Your task to perform on an android device: Search for "logitech g pro" on amazon, select the first entry, add it to the cart, then select checkout. Image 0: 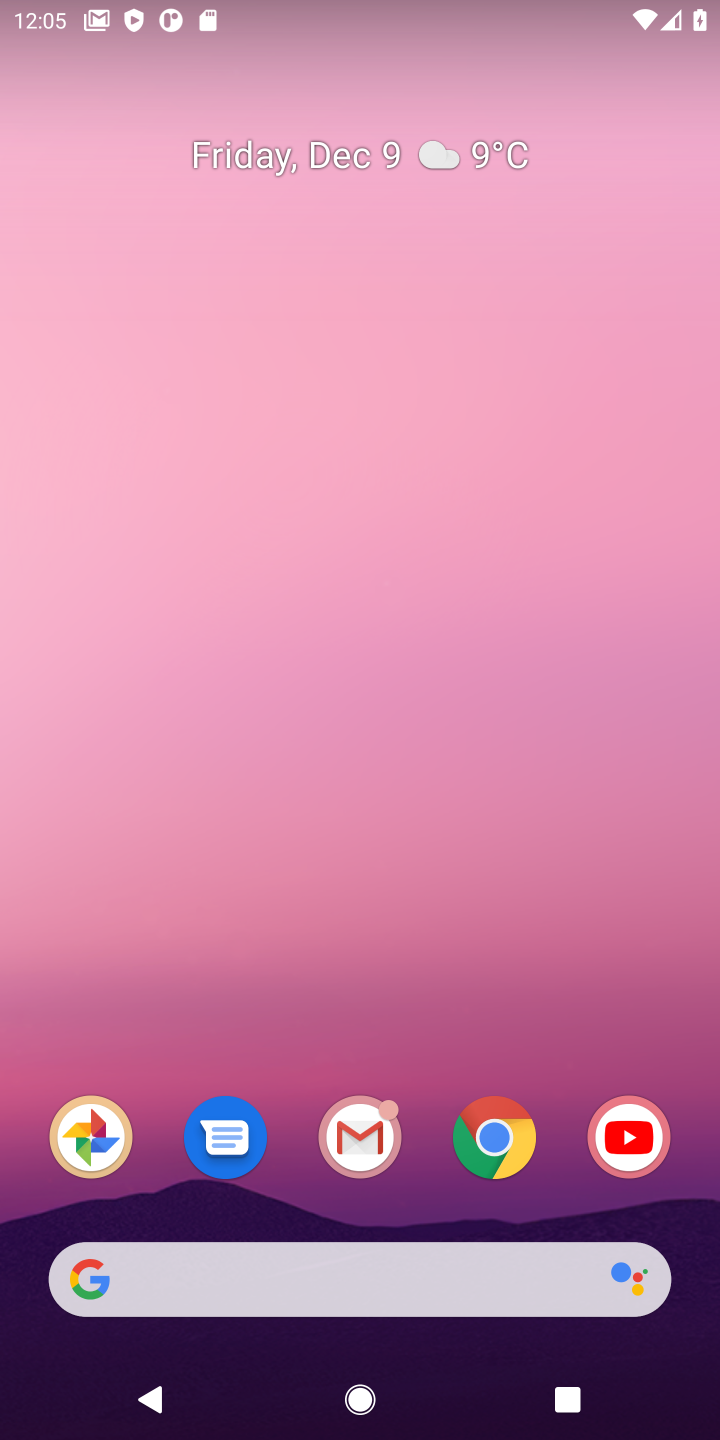
Step 0: click (301, 1273)
Your task to perform on an android device: Search for "logitech g pro" on amazon, select the first entry, add it to the cart, then select checkout. Image 1: 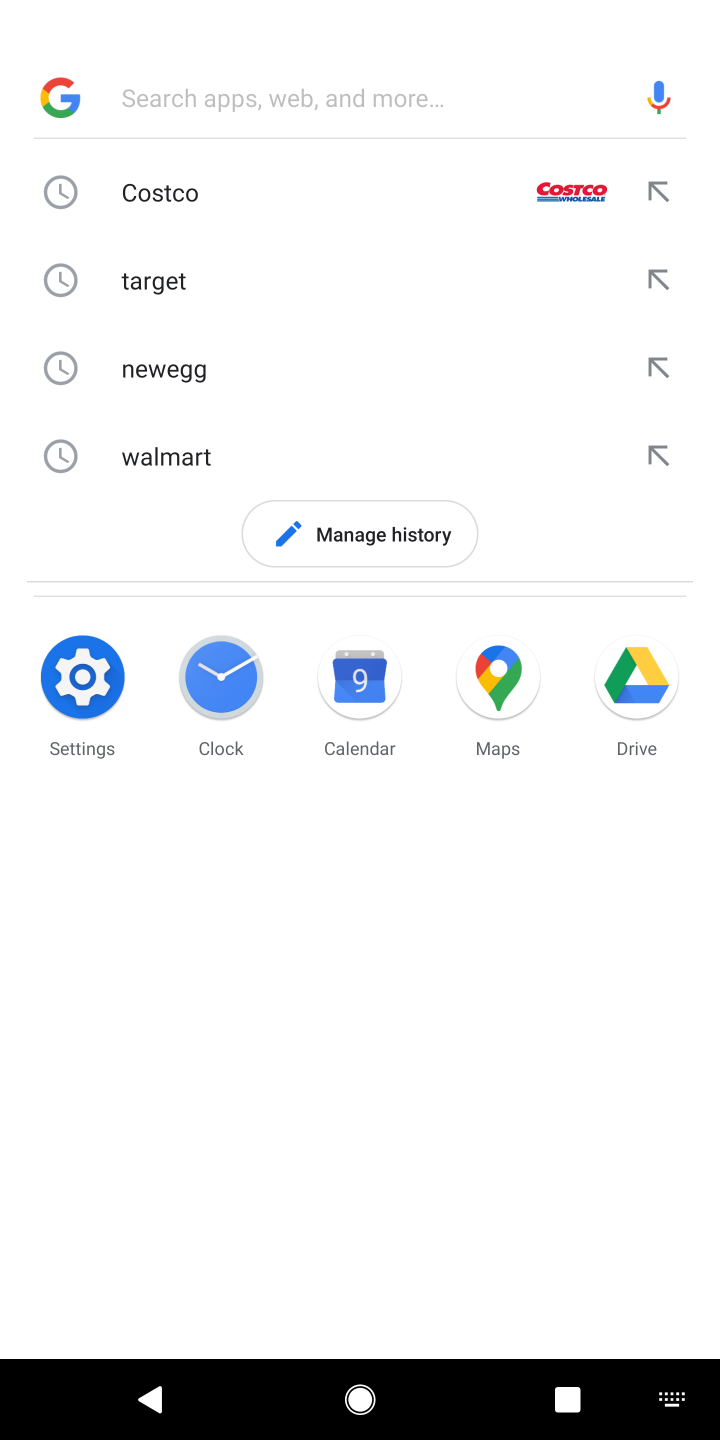
Step 1: type "amazon"
Your task to perform on an android device: Search for "logitech g pro" on amazon, select the first entry, add it to the cart, then select checkout. Image 2: 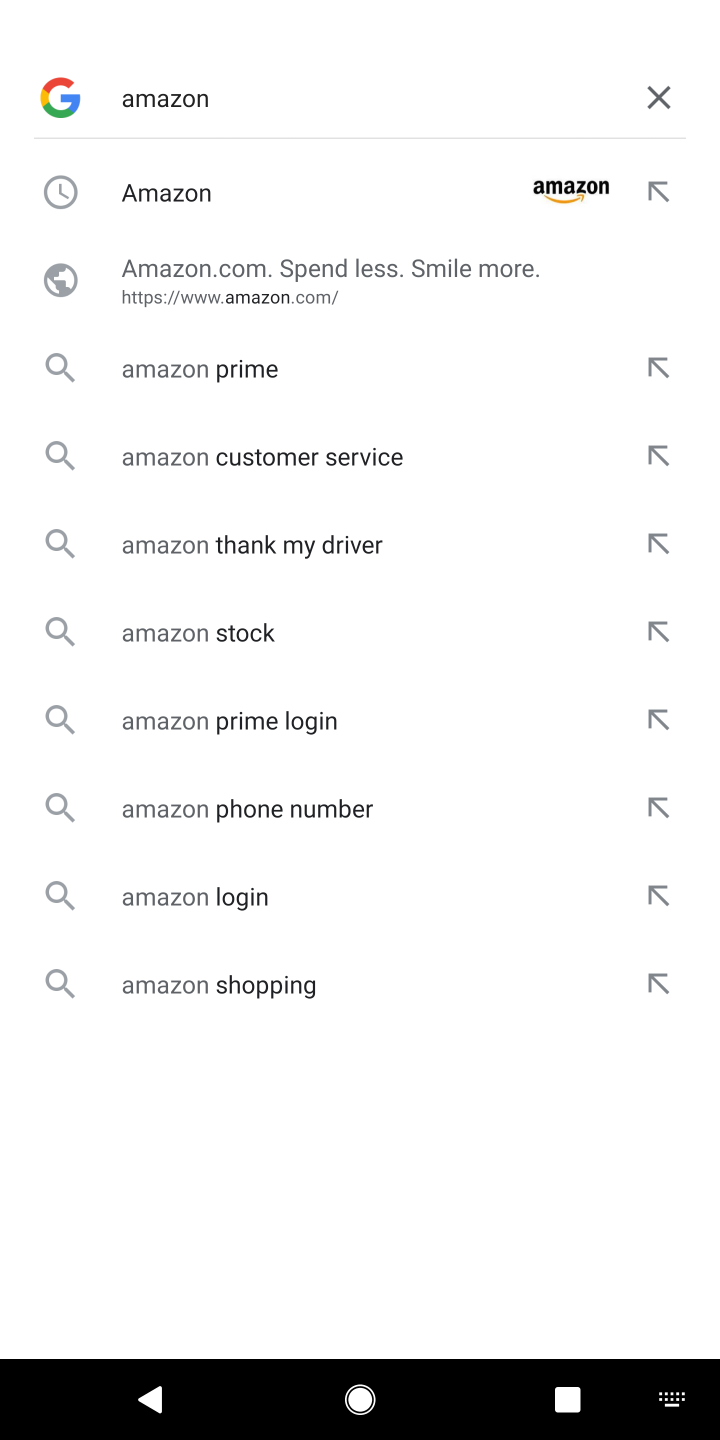
Step 2: click (253, 213)
Your task to perform on an android device: Search for "logitech g pro" on amazon, select the first entry, add it to the cart, then select checkout. Image 3: 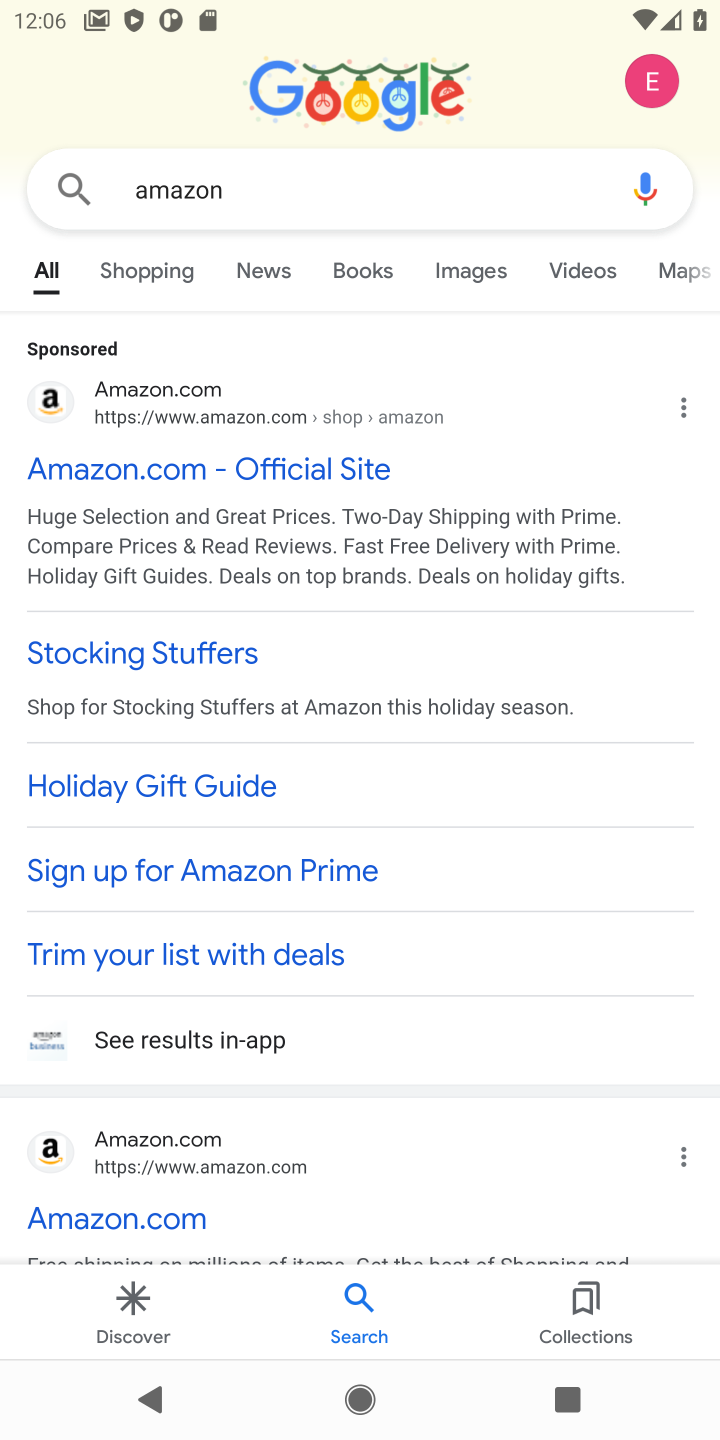
Step 3: click (145, 497)
Your task to perform on an android device: Search for "logitech g pro" on amazon, select the first entry, add it to the cart, then select checkout. Image 4: 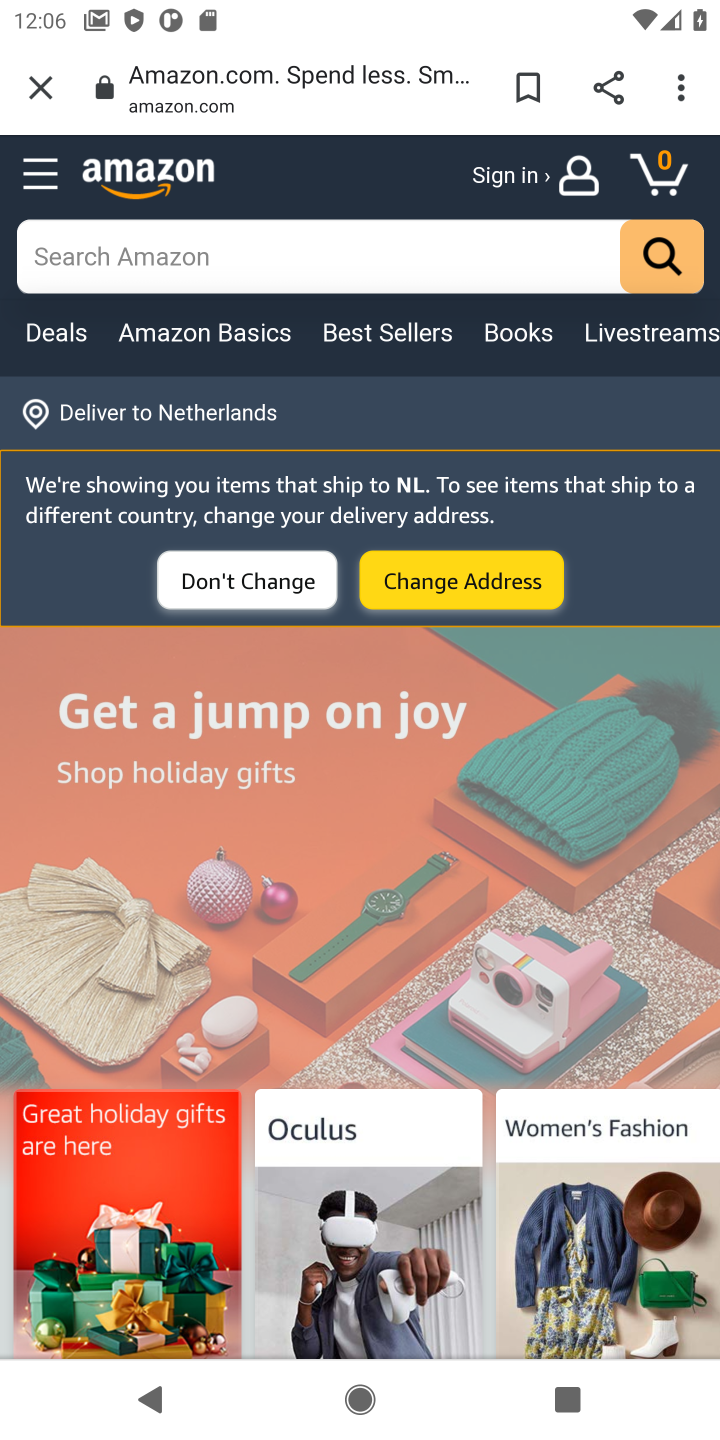
Step 4: click (320, 276)
Your task to perform on an android device: Search for "logitech g pro" on amazon, select the first entry, add it to the cart, then select checkout. Image 5: 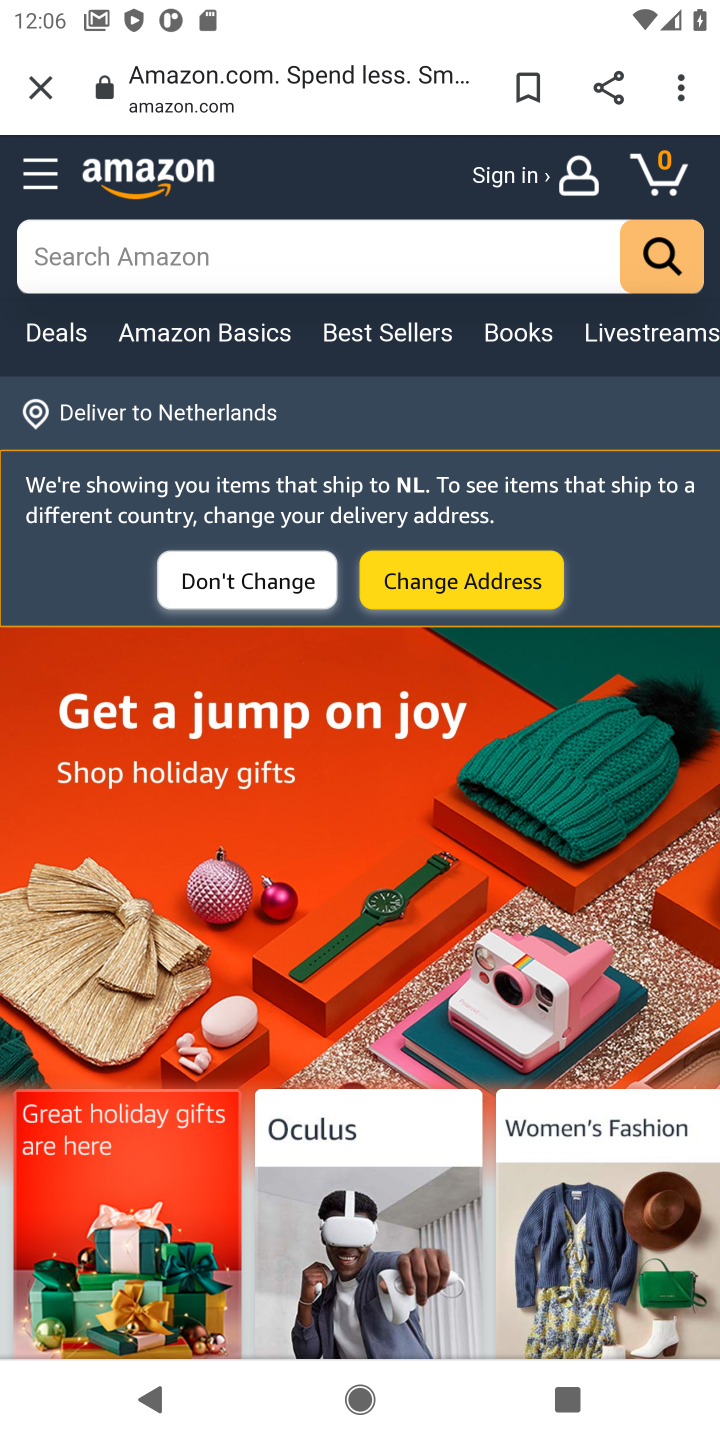
Step 5: click (320, 276)
Your task to perform on an android device: Search for "logitech g pro" on amazon, select the first entry, add it to the cart, then select checkout. Image 6: 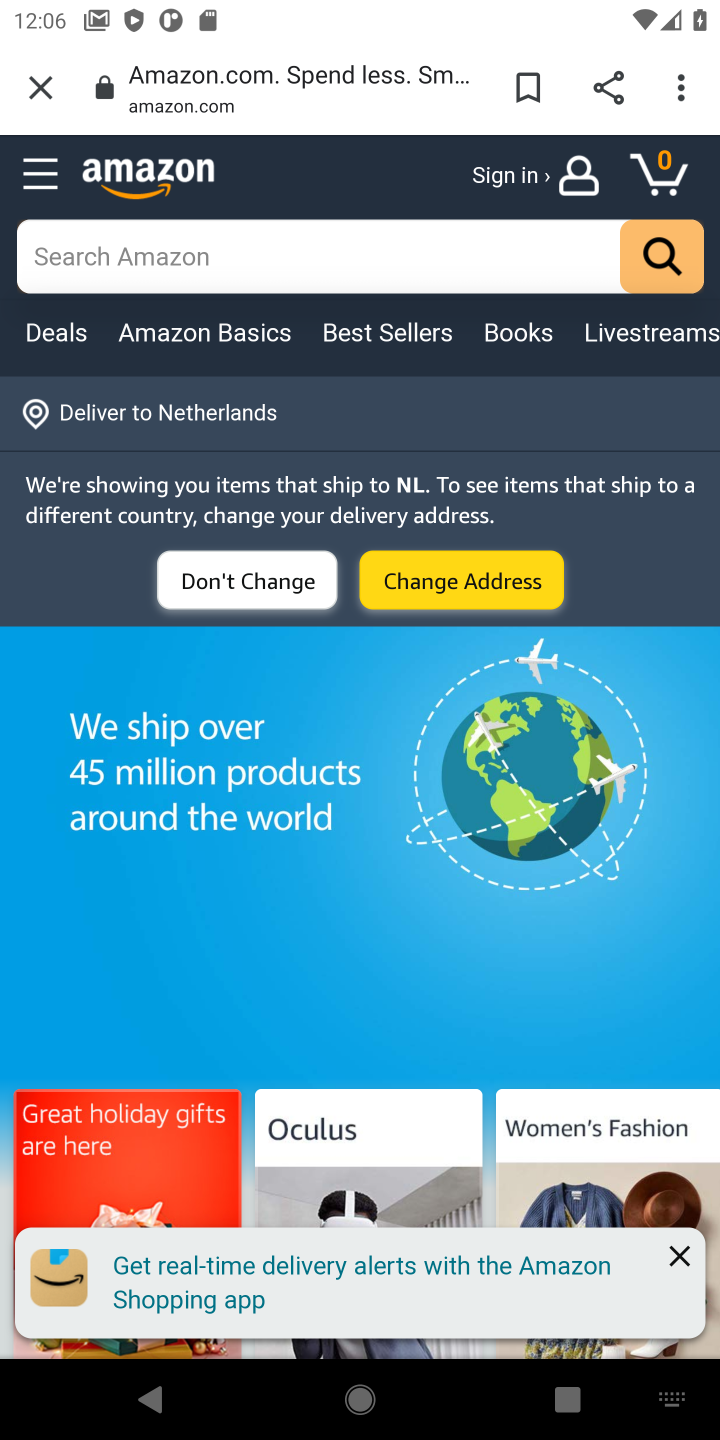
Step 6: type "logitech gpro"
Your task to perform on an android device: Search for "logitech g pro" on amazon, select the first entry, add it to the cart, then select checkout. Image 7: 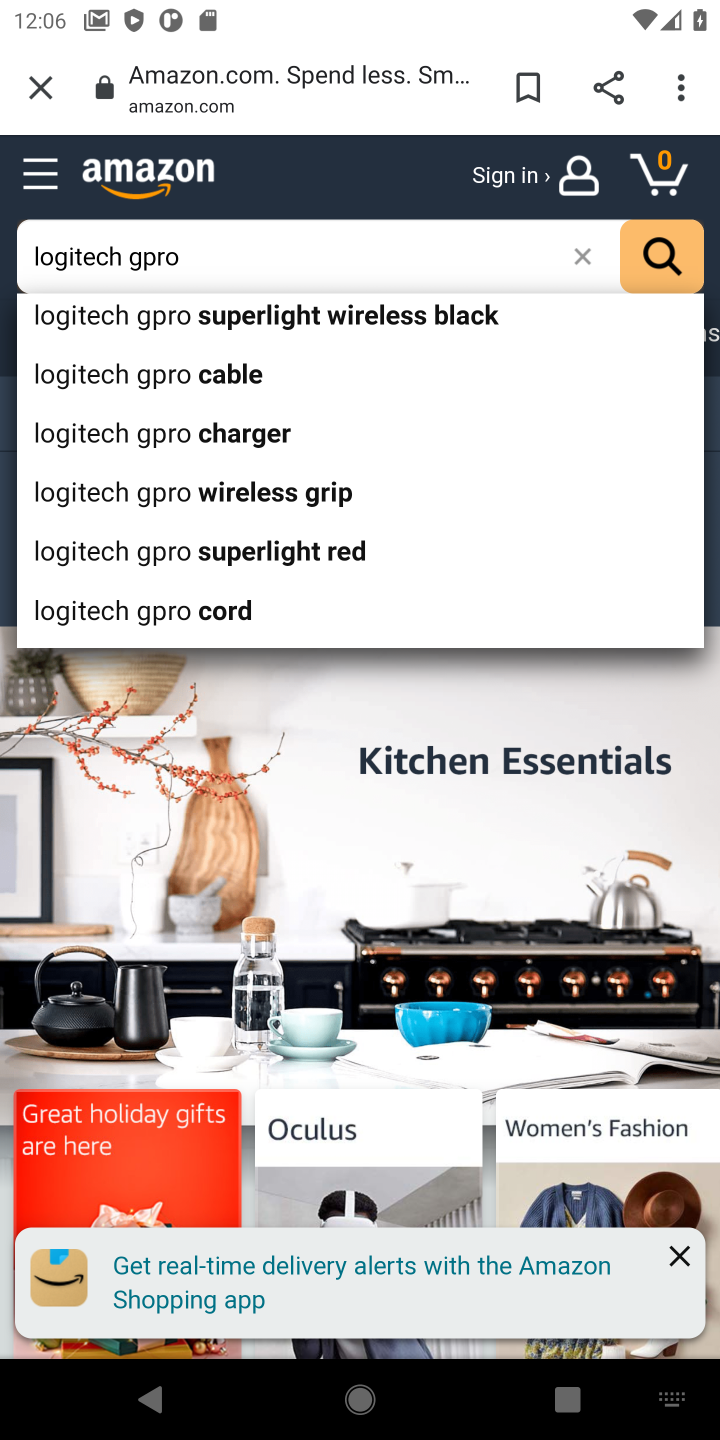
Step 7: click (657, 265)
Your task to perform on an android device: Search for "logitech g pro" on amazon, select the first entry, add it to the cart, then select checkout. Image 8: 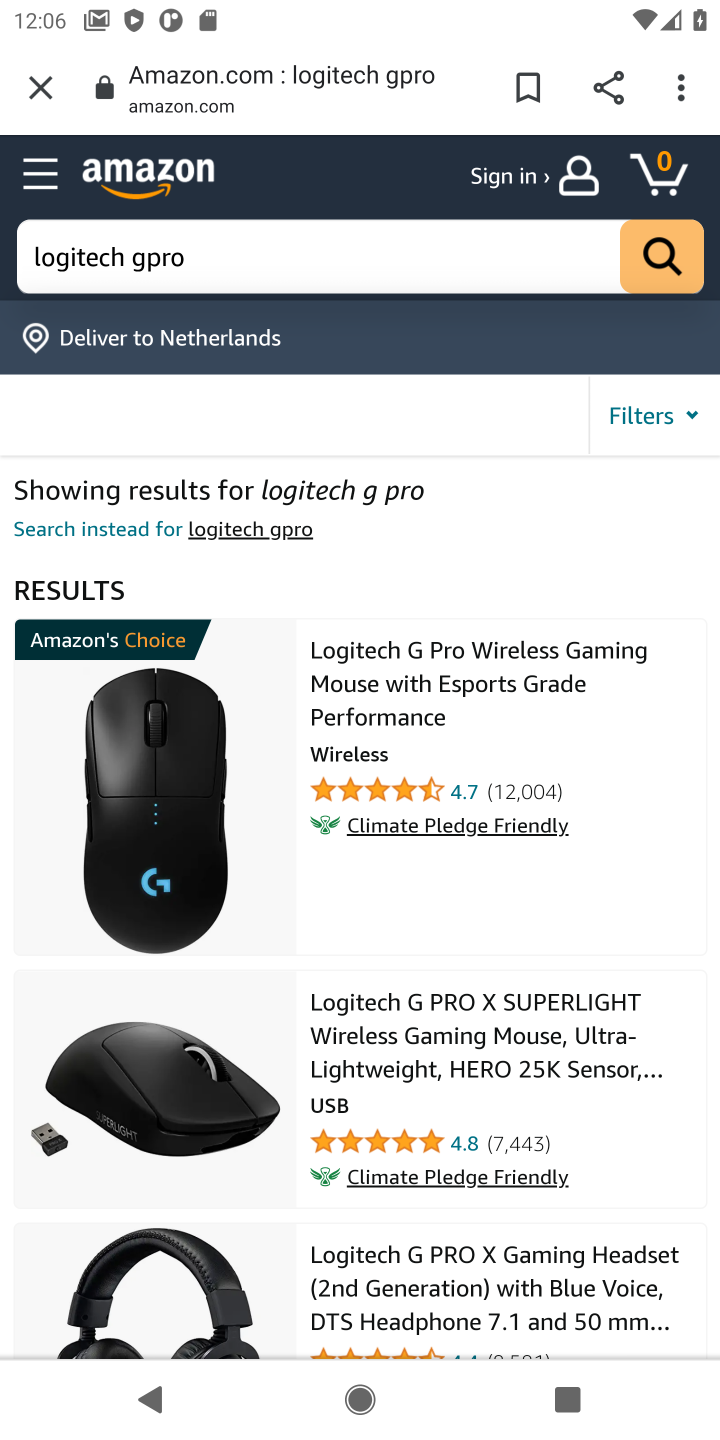
Step 8: click (327, 681)
Your task to perform on an android device: Search for "logitech g pro" on amazon, select the first entry, add it to the cart, then select checkout. Image 9: 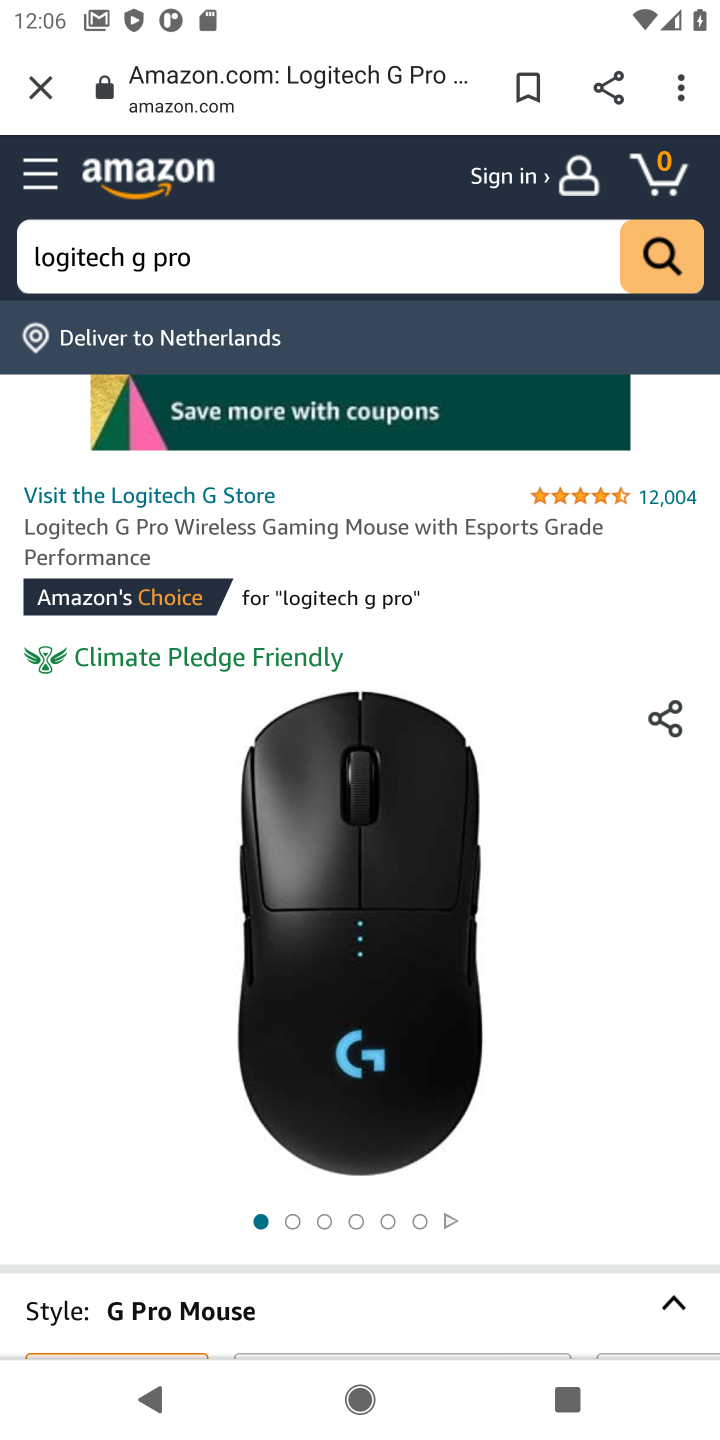
Step 9: drag from (513, 1037) to (412, 120)
Your task to perform on an android device: Search for "logitech g pro" on amazon, select the first entry, add it to the cart, then select checkout. Image 10: 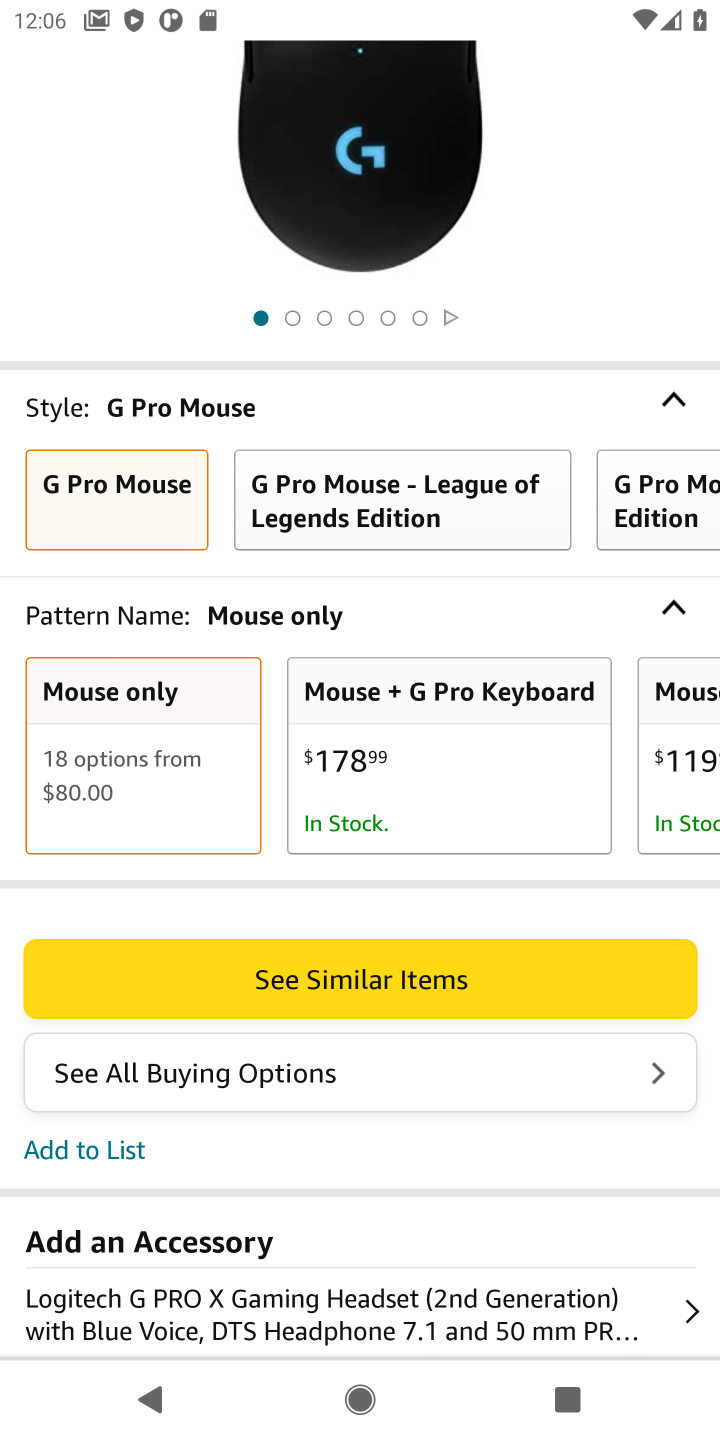
Step 10: drag from (363, 1042) to (354, 245)
Your task to perform on an android device: Search for "logitech g pro" on amazon, select the first entry, add it to the cart, then select checkout. Image 11: 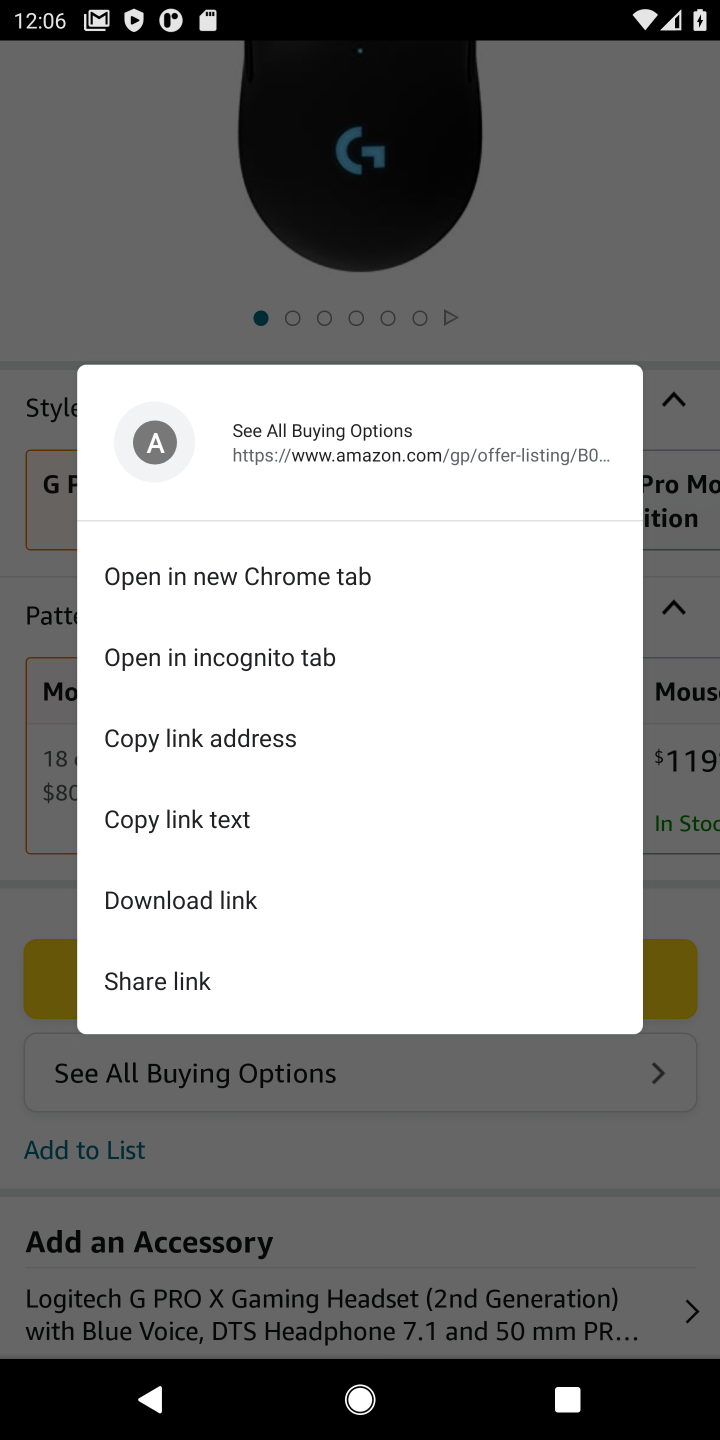
Step 11: click (354, 245)
Your task to perform on an android device: Search for "logitech g pro" on amazon, select the first entry, add it to the cart, then select checkout. Image 12: 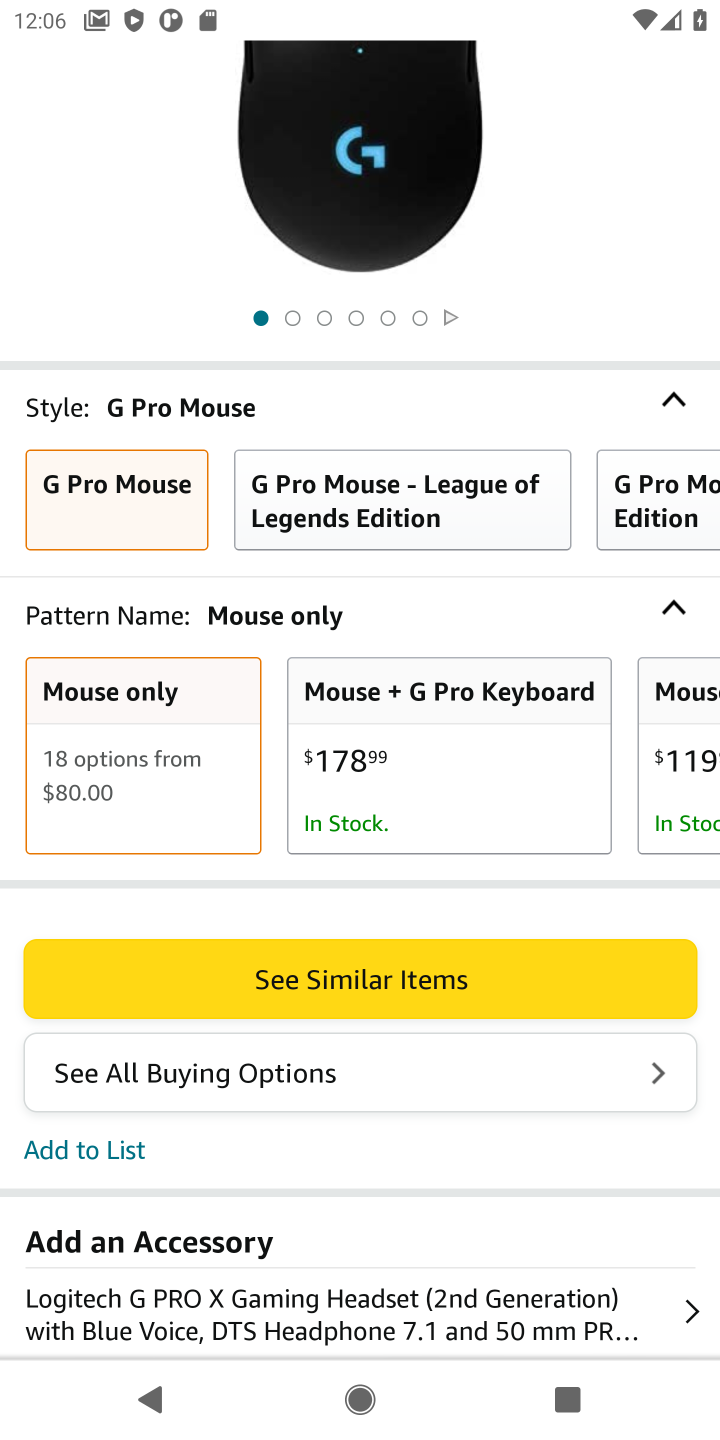
Step 12: task complete